Your task to perform on an android device: empty trash in google photos Image 0: 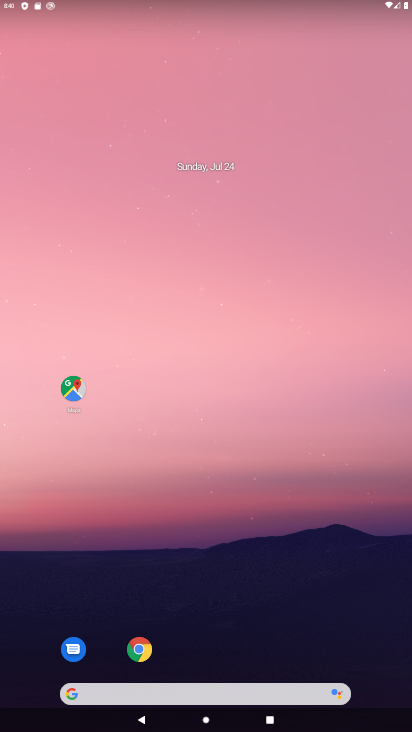
Step 0: drag from (44, 682) to (174, 73)
Your task to perform on an android device: empty trash in google photos Image 1: 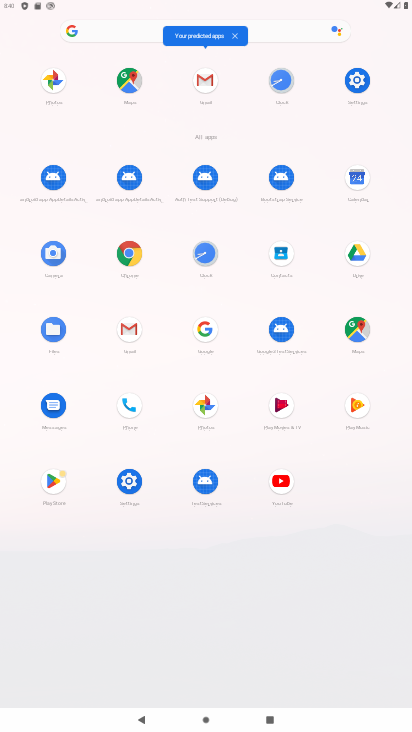
Step 1: click (209, 414)
Your task to perform on an android device: empty trash in google photos Image 2: 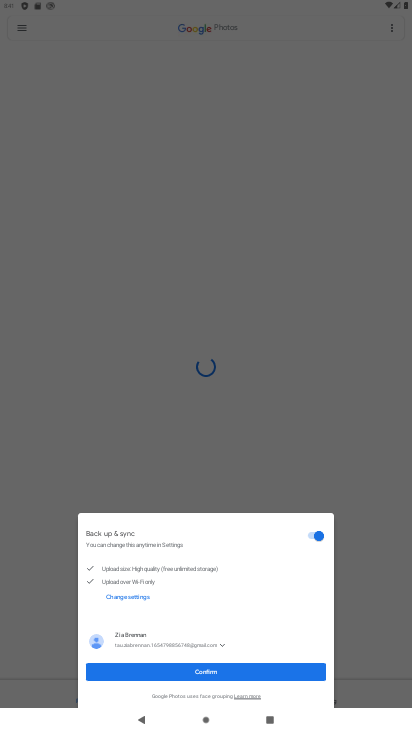
Step 2: click (176, 671)
Your task to perform on an android device: empty trash in google photos Image 3: 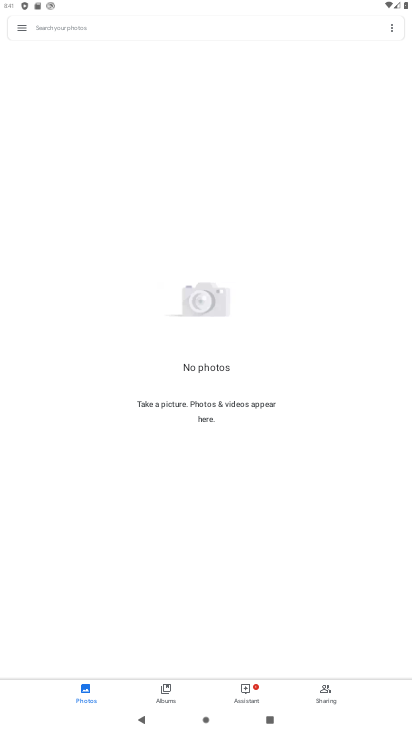
Step 3: click (25, 27)
Your task to perform on an android device: empty trash in google photos Image 4: 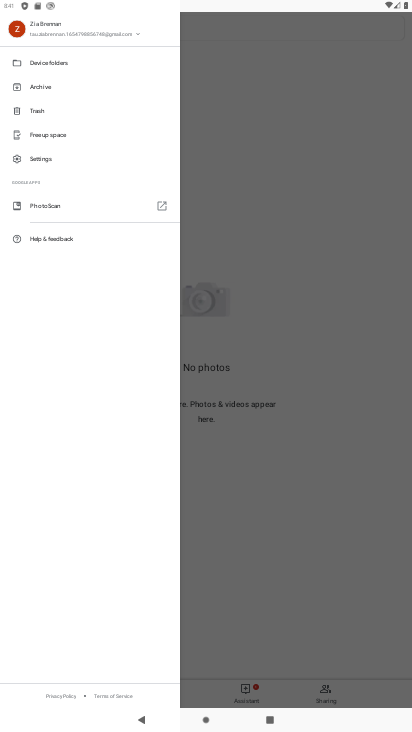
Step 4: click (44, 111)
Your task to perform on an android device: empty trash in google photos Image 5: 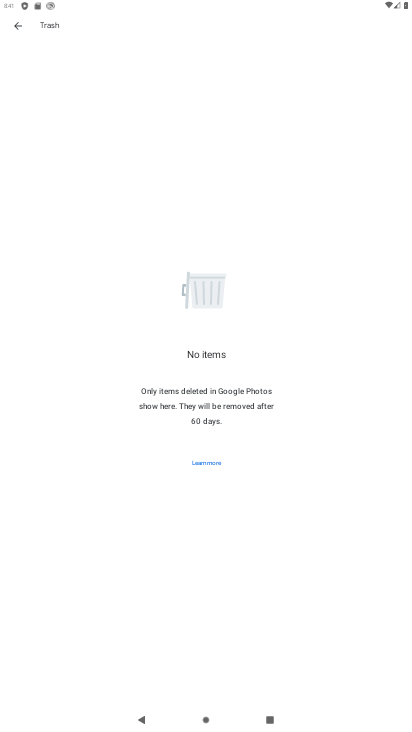
Step 5: task complete